Your task to perform on an android device: Open Reddit.com Image 0: 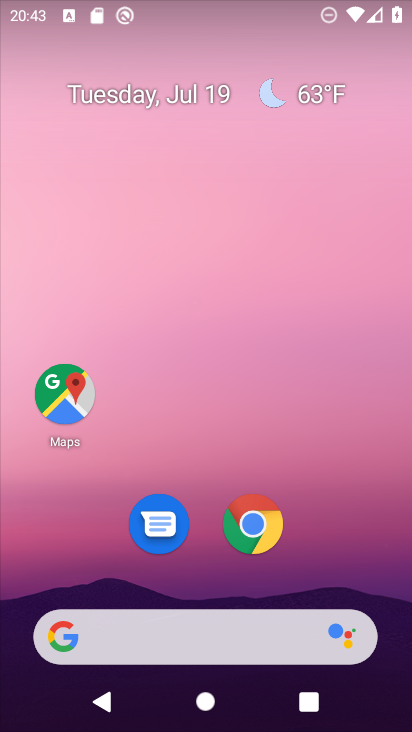
Step 0: click (251, 640)
Your task to perform on an android device: Open Reddit.com Image 1: 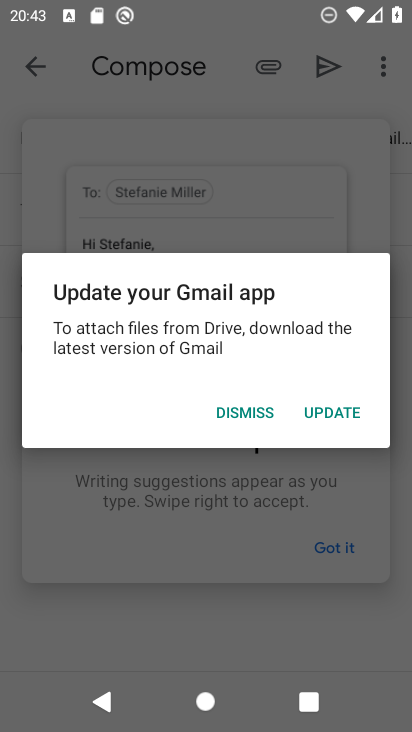
Step 1: press home button
Your task to perform on an android device: Open Reddit.com Image 2: 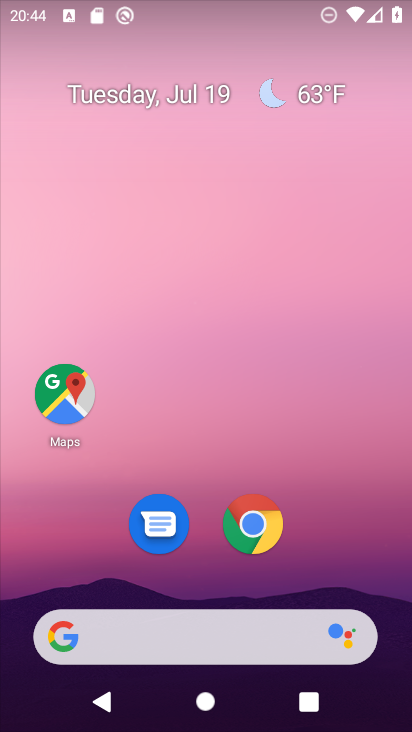
Step 2: click (254, 635)
Your task to perform on an android device: Open Reddit.com Image 3: 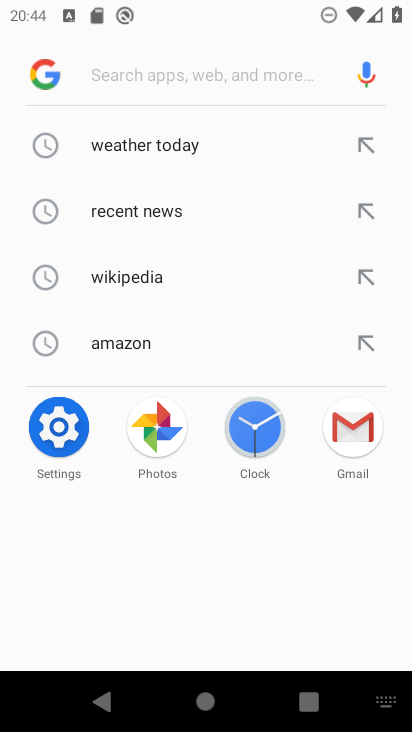
Step 3: type "reddit.com"
Your task to perform on an android device: Open Reddit.com Image 4: 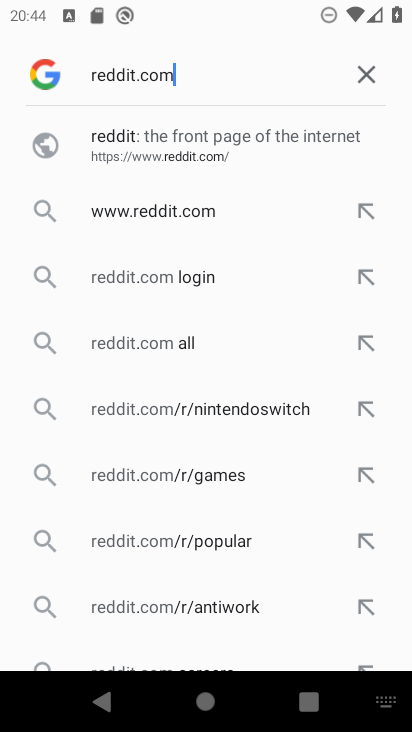
Step 4: click (203, 203)
Your task to perform on an android device: Open Reddit.com Image 5: 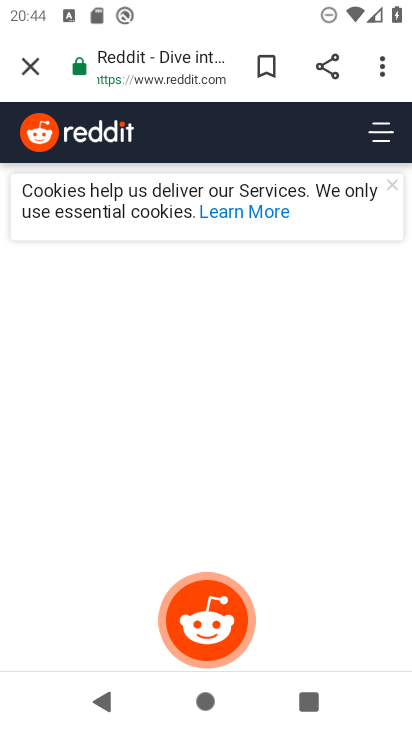
Step 5: click (392, 186)
Your task to perform on an android device: Open Reddit.com Image 6: 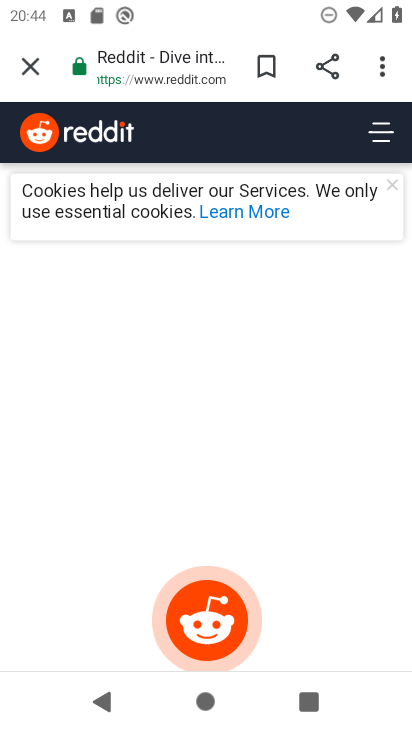
Step 6: click (392, 181)
Your task to perform on an android device: Open Reddit.com Image 7: 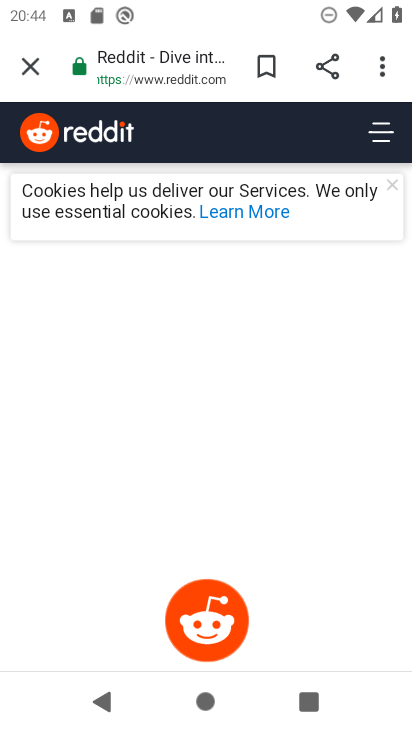
Step 7: click (392, 181)
Your task to perform on an android device: Open Reddit.com Image 8: 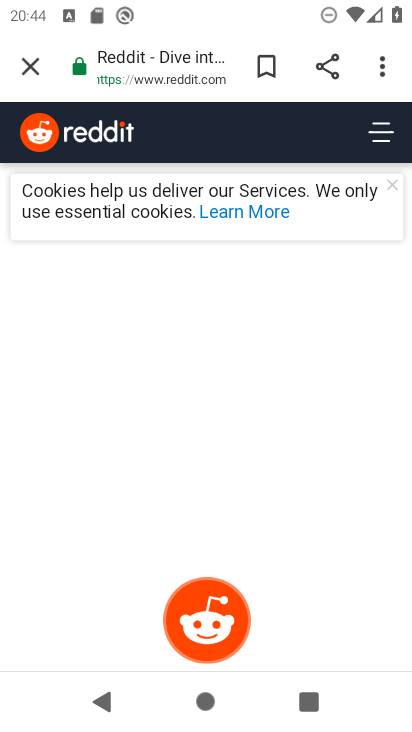
Step 8: click (392, 181)
Your task to perform on an android device: Open Reddit.com Image 9: 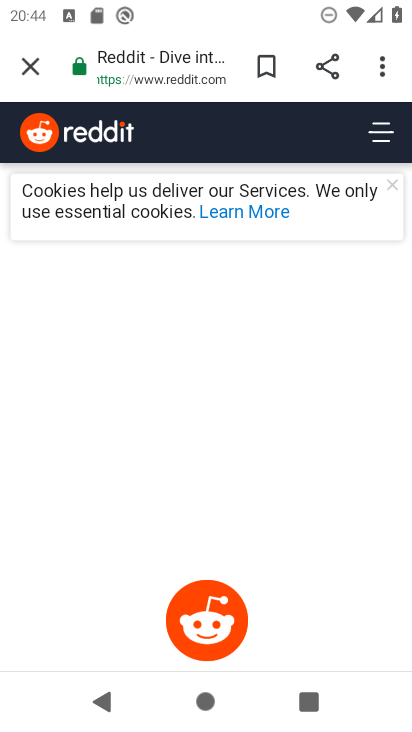
Step 9: click (387, 177)
Your task to perform on an android device: Open Reddit.com Image 10: 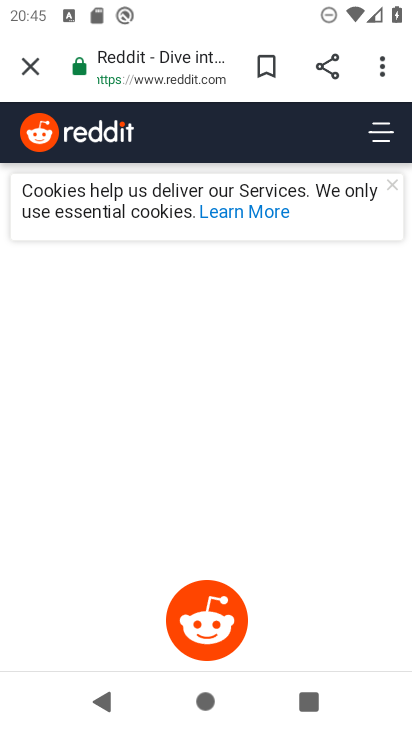
Step 10: click (392, 180)
Your task to perform on an android device: Open Reddit.com Image 11: 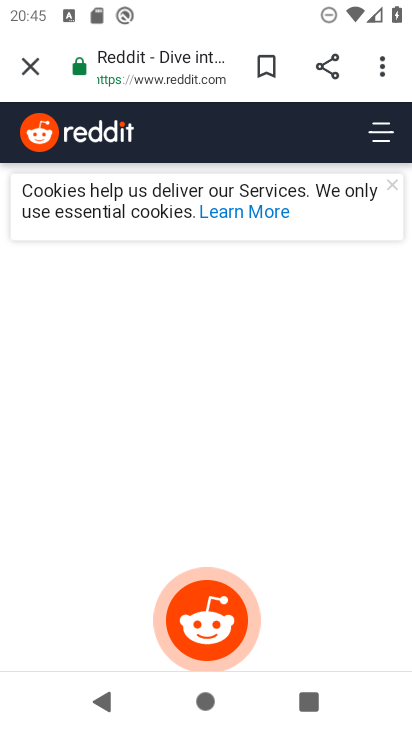
Step 11: click (392, 180)
Your task to perform on an android device: Open Reddit.com Image 12: 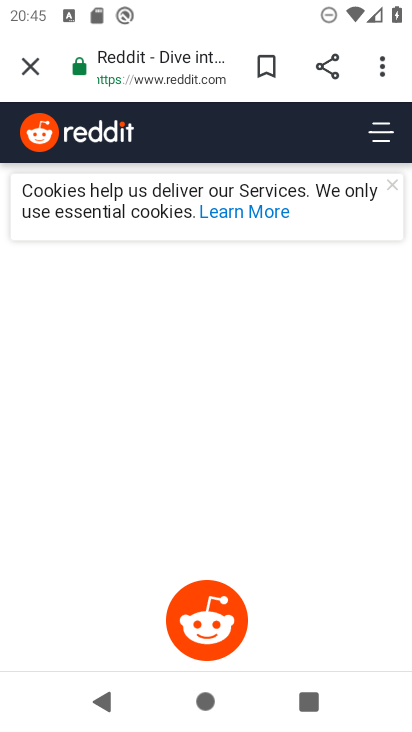
Step 12: click (387, 181)
Your task to perform on an android device: Open Reddit.com Image 13: 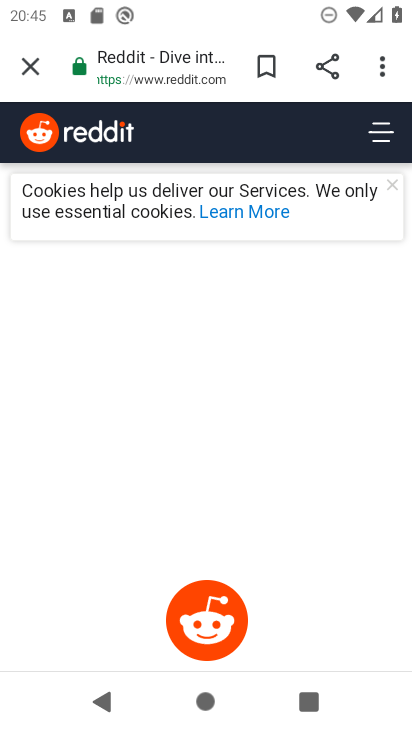
Step 13: click (206, 615)
Your task to perform on an android device: Open Reddit.com Image 14: 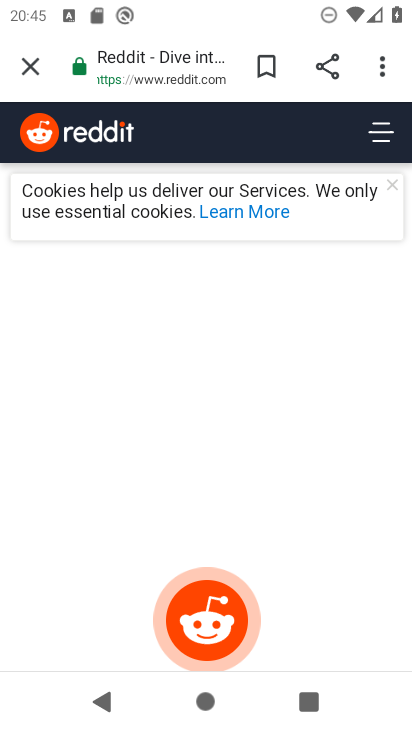
Step 14: click (211, 615)
Your task to perform on an android device: Open Reddit.com Image 15: 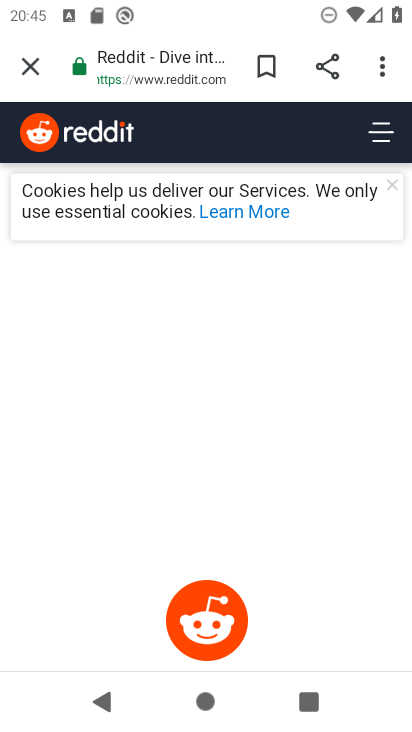
Step 15: task complete